Your task to perform on an android device: toggle sleep mode Image 0: 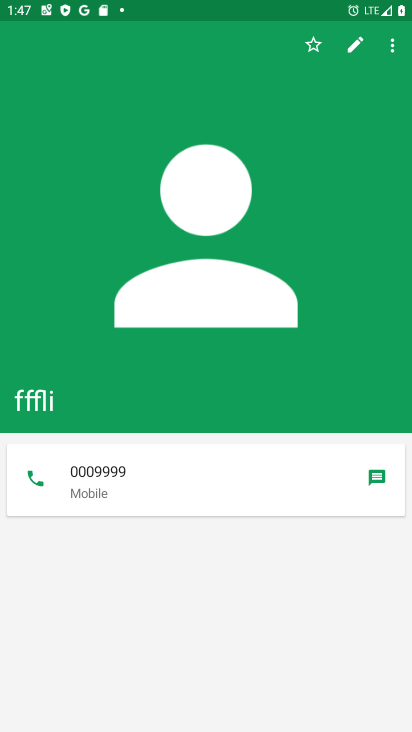
Step 0: press home button
Your task to perform on an android device: toggle sleep mode Image 1: 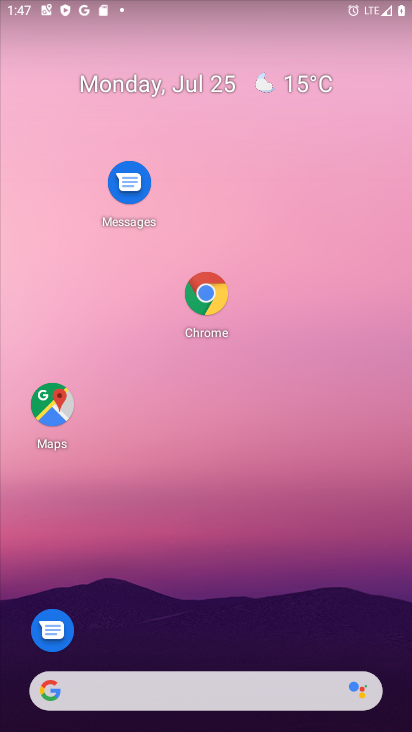
Step 1: drag from (266, 556) to (367, 45)
Your task to perform on an android device: toggle sleep mode Image 2: 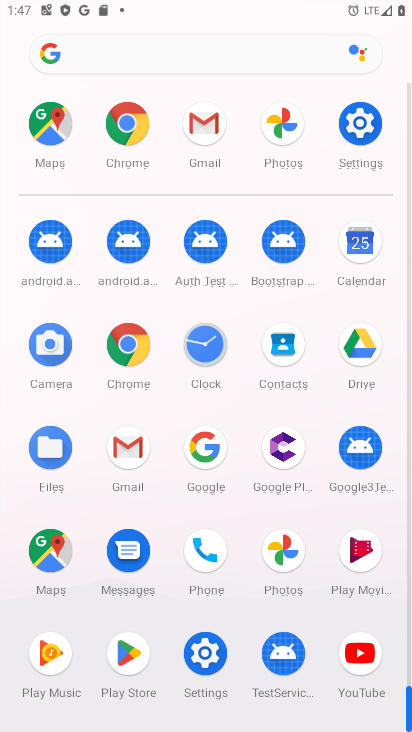
Step 2: click (202, 649)
Your task to perform on an android device: toggle sleep mode Image 3: 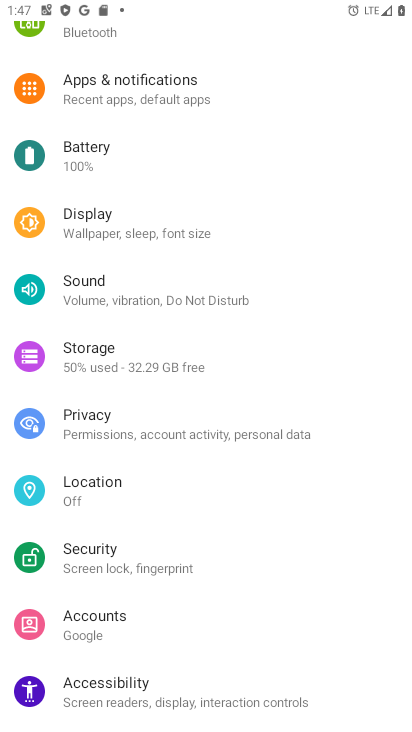
Step 3: click (80, 227)
Your task to perform on an android device: toggle sleep mode Image 4: 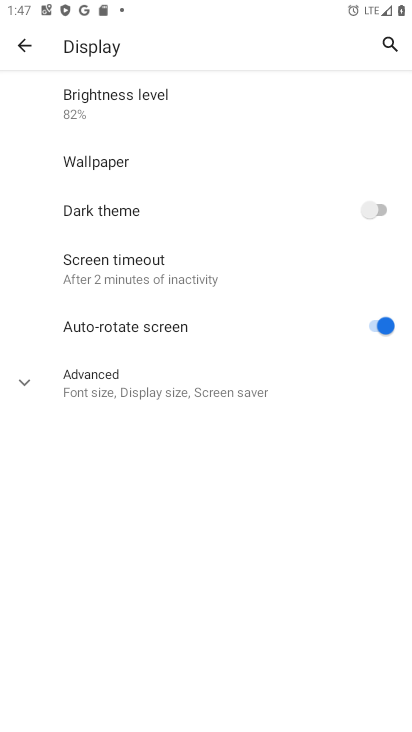
Step 4: click (118, 268)
Your task to perform on an android device: toggle sleep mode Image 5: 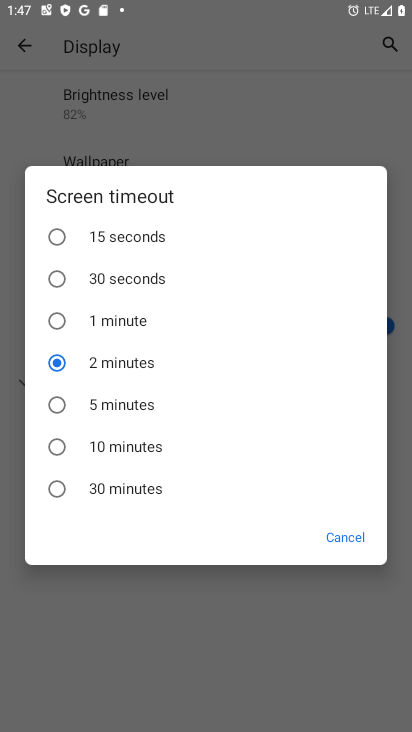
Step 5: click (112, 398)
Your task to perform on an android device: toggle sleep mode Image 6: 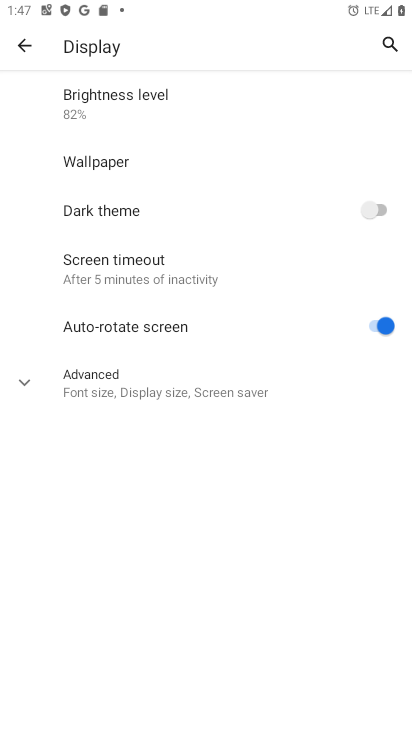
Step 6: task complete